Your task to perform on an android device: add a contact Image 0: 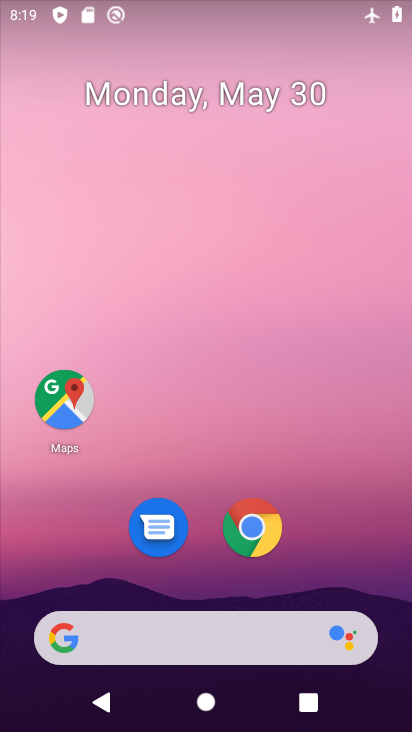
Step 0: drag from (317, 573) to (237, 10)
Your task to perform on an android device: add a contact Image 1: 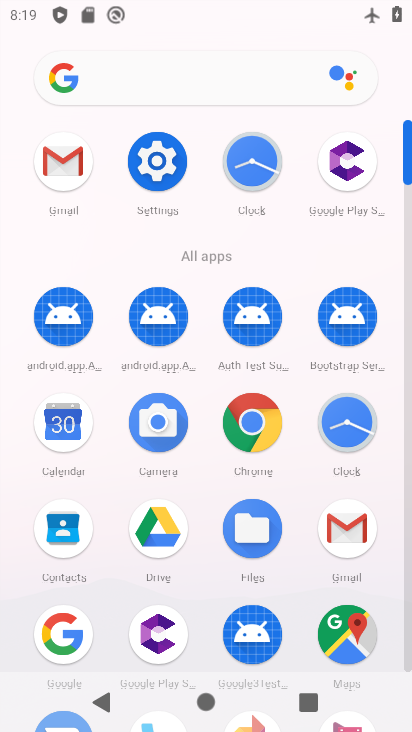
Step 1: click (59, 523)
Your task to perform on an android device: add a contact Image 2: 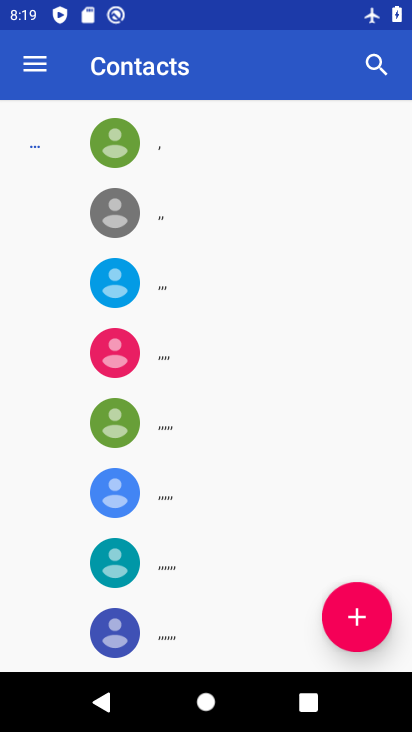
Step 2: click (358, 608)
Your task to perform on an android device: add a contact Image 3: 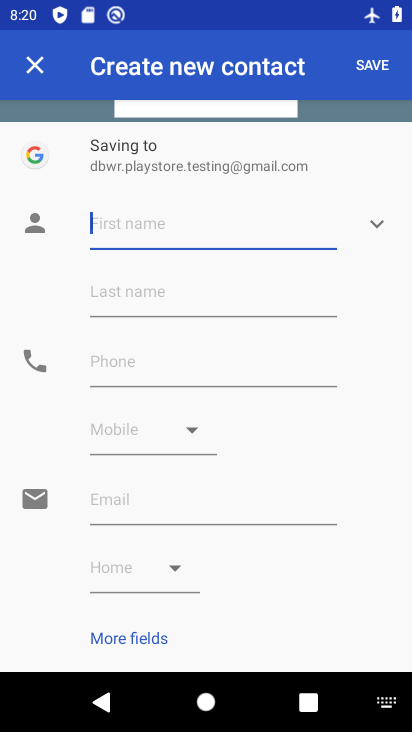
Step 3: type "zxsdcvfgb"
Your task to perform on an android device: add a contact Image 4: 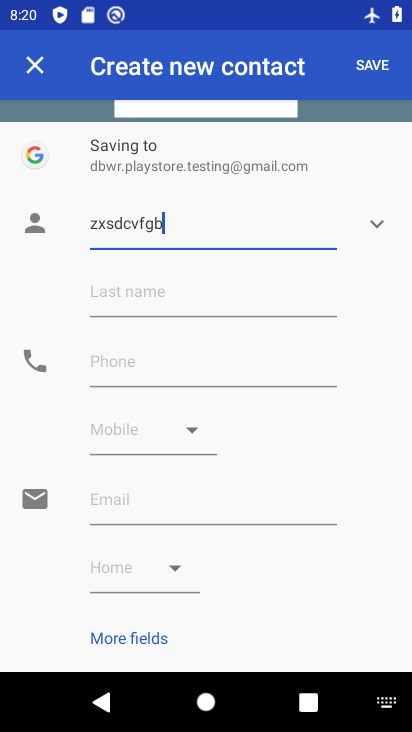
Step 4: click (148, 366)
Your task to perform on an android device: add a contact Image 5: 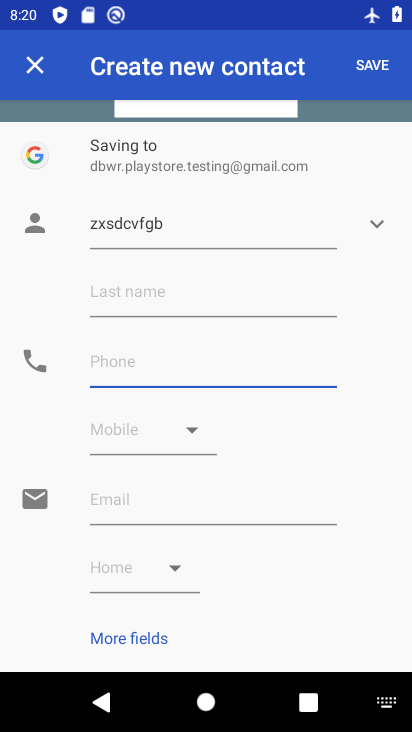
Step 5: type "9876543210"
Your task to perform on an android device: add a contact Image 6: 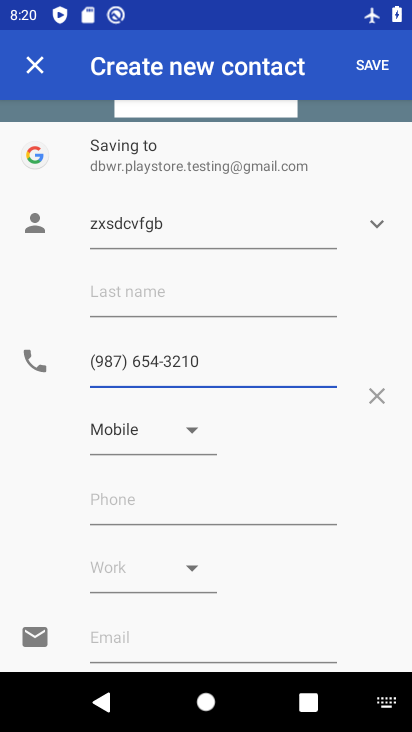
Step 6: click (364, 58)
Your task to perform on an android device: add a contact Image 7: 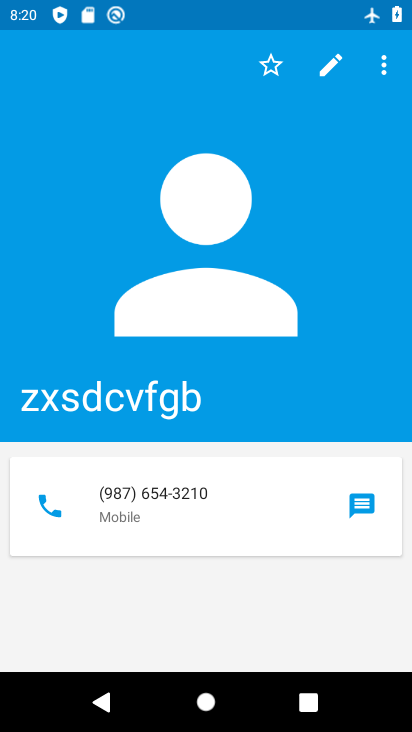
Step 7: task complete